Your task to perform on an android device: Open eBay Image 0: 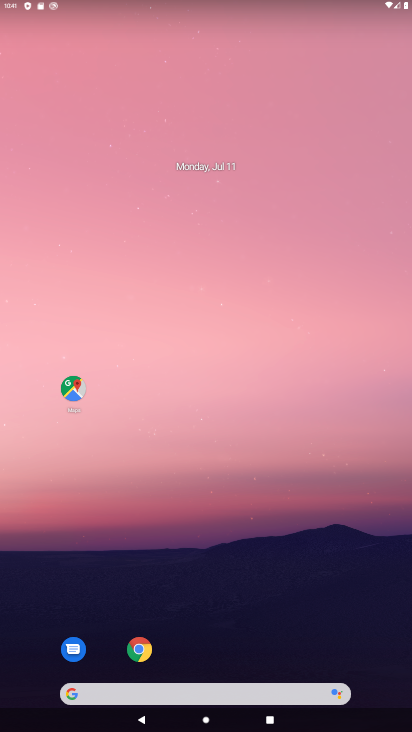
Step 0: drag from (316, 472) to (316, 15)
Your task to perform on an android device: Open eBay Image 1: 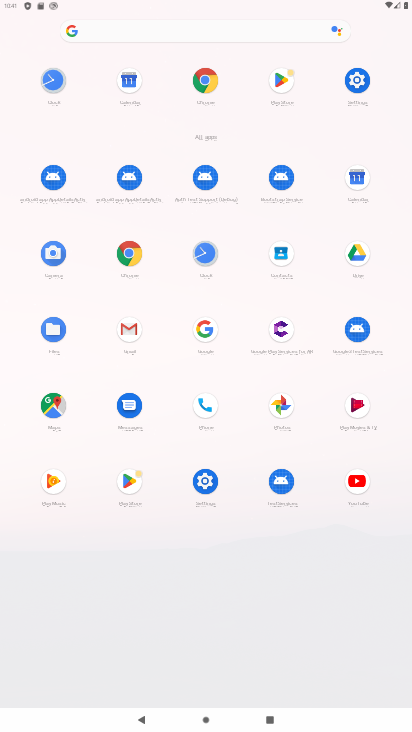
Step 1: click (210, 82)
Your task to perform on an android device: Open eBay Image 2: 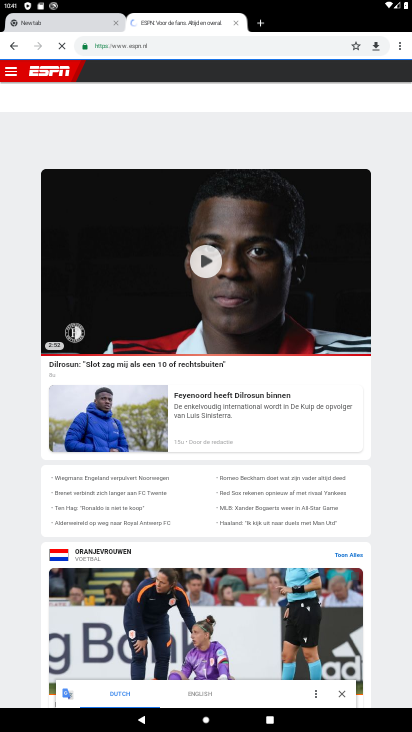
Step 2: click (192, 42)
Your task to perform on an android device: Open eBay Image 3: 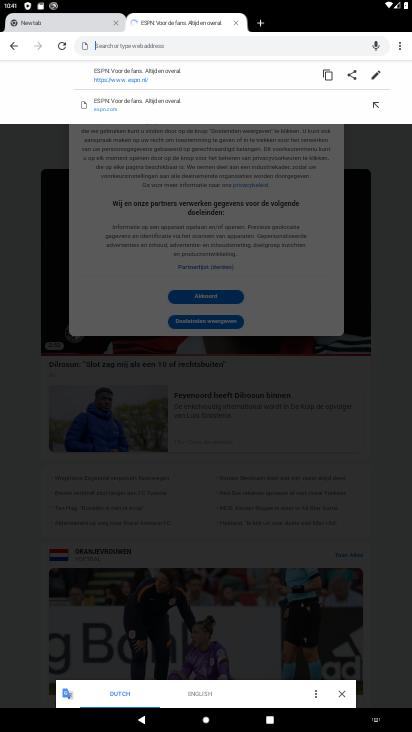
Step 3: type "ebay["
Your task to perform on an android device: Open eBay Image 4: 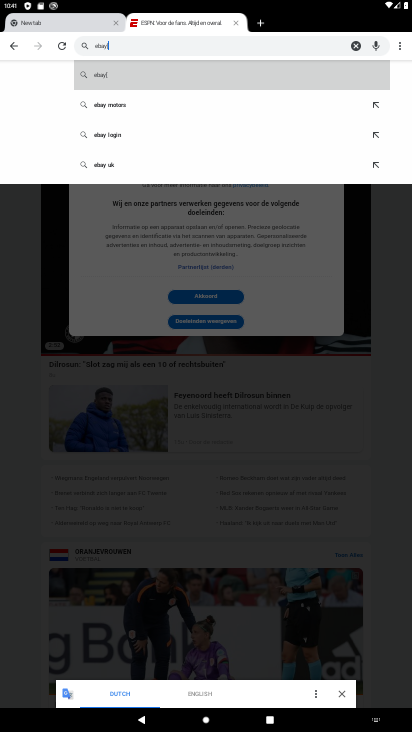
Step 4: type "\y"
Your task to perform on an android device: Open eBay Image 5: 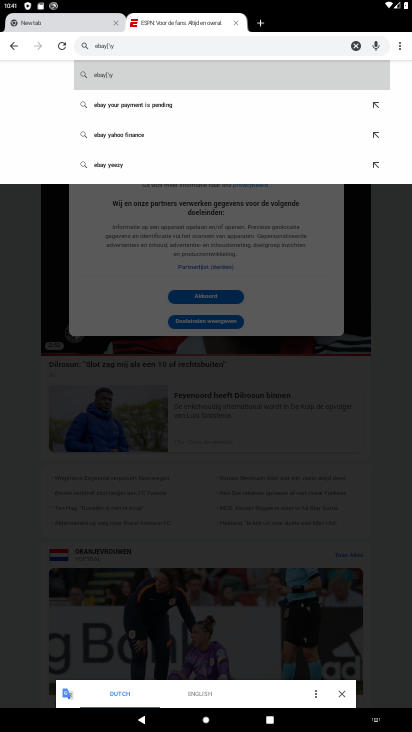
Step 5: press enter
Your task to perform on an android device: Open eBay Image 6: 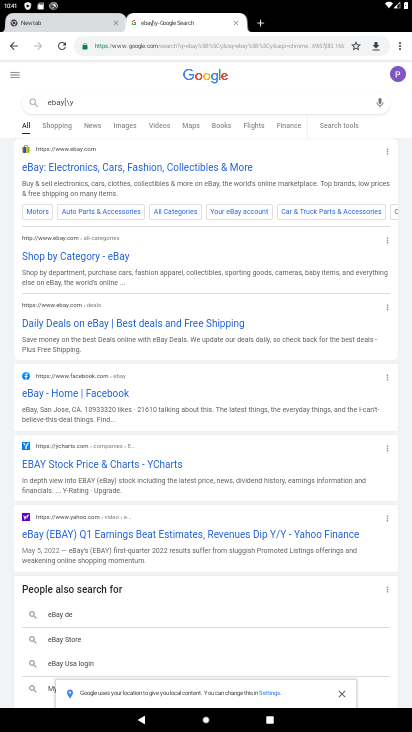
Step 6: click (88, 163)
Your task to perform on an android device: Open eBay Image 7: 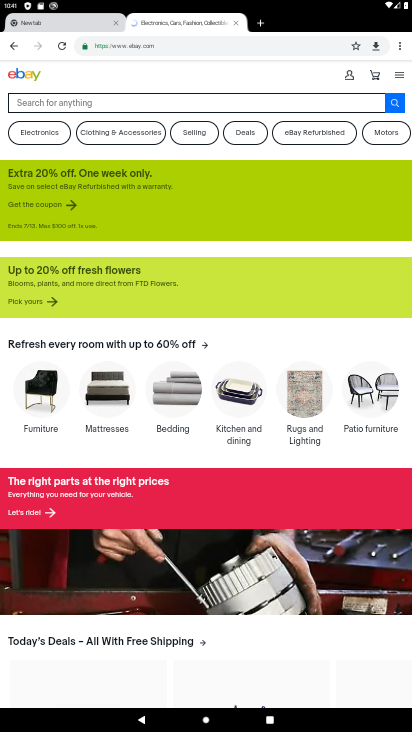
Step 7: task complete